Your task to perform on an android device: Go to battery settings Image 0: 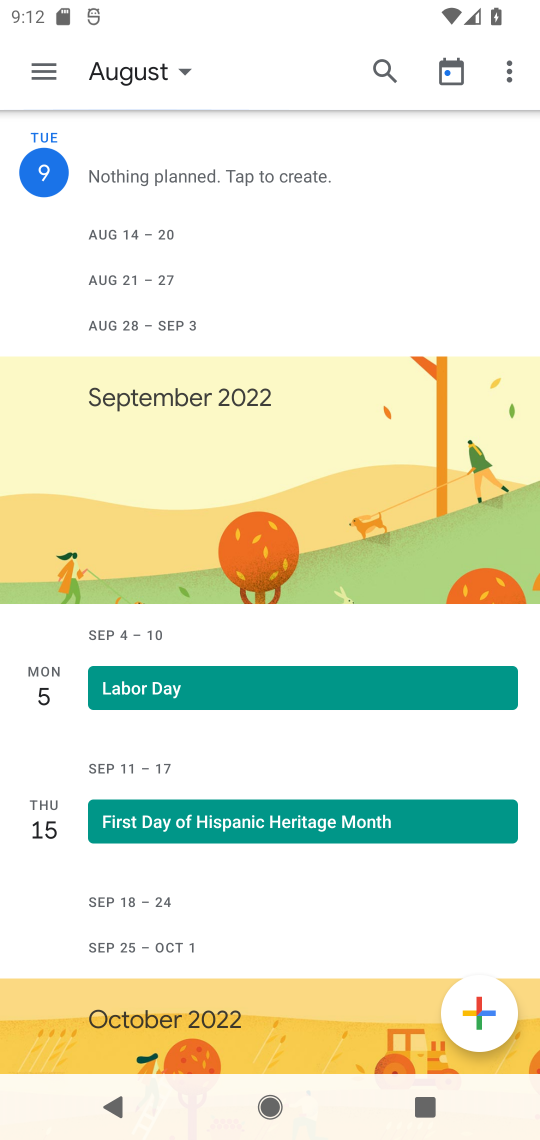
Step 0: press home button
Your task to perform on an android device: Go to battery settings Image 1: 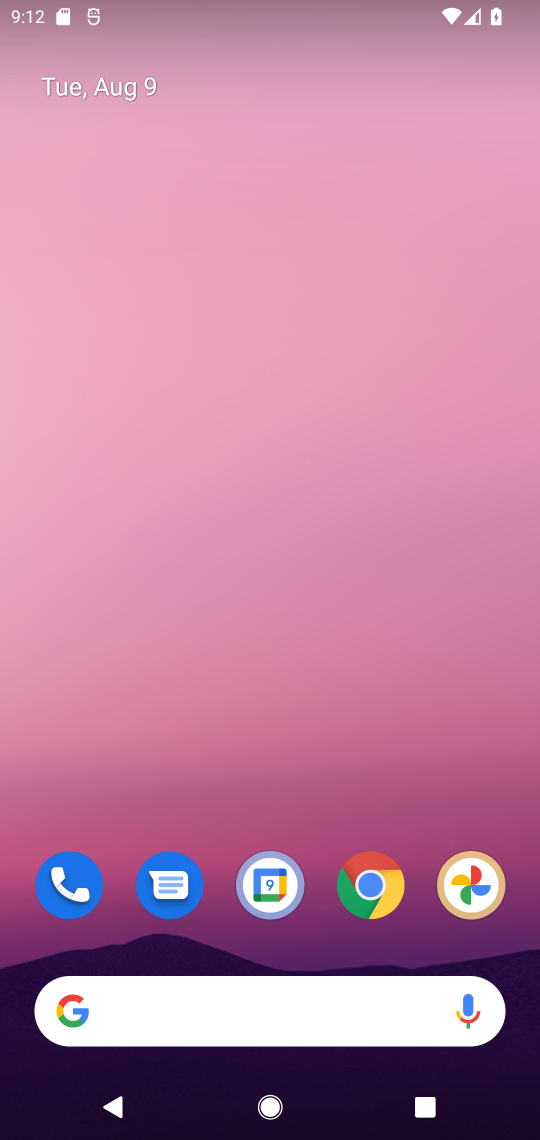
Step 1: drag from (323, 1021) to (273, 28)
Your task to perform on an android device: Go to battery settings Image 2: 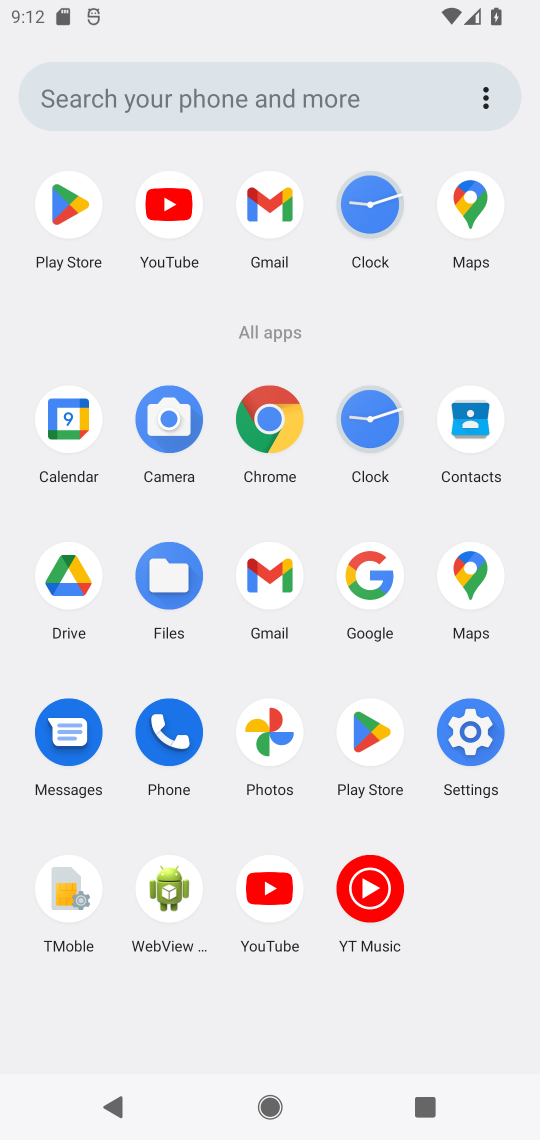
Step 2: click (480, 741)
Your task to perform on an android device: Go to battery settings Image 3: 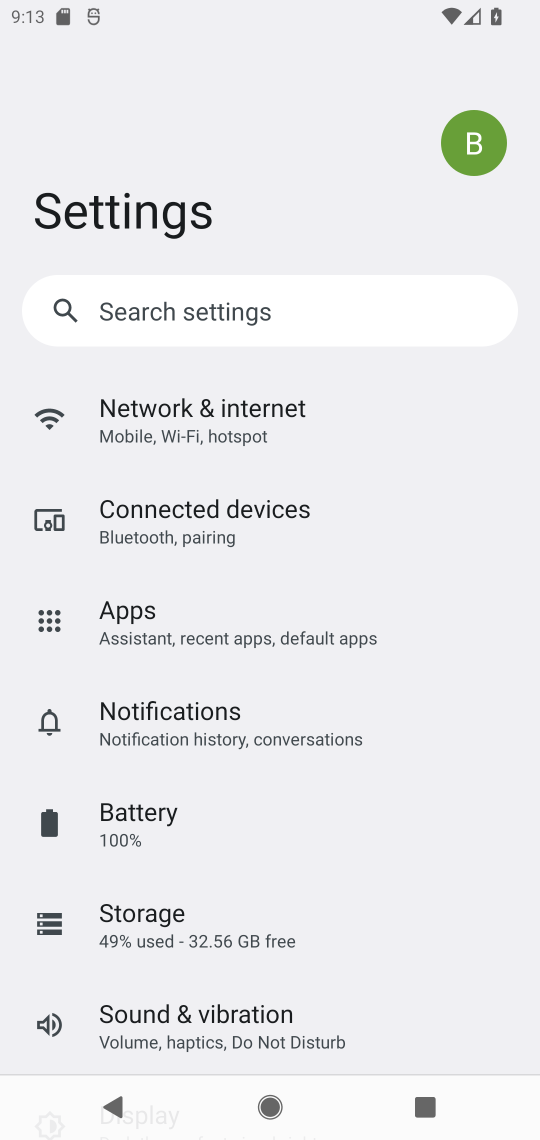
Step 3: drag from (219, 888) to (244, 172)
Your task to perform on an android device: Go to battery settings Image 4: 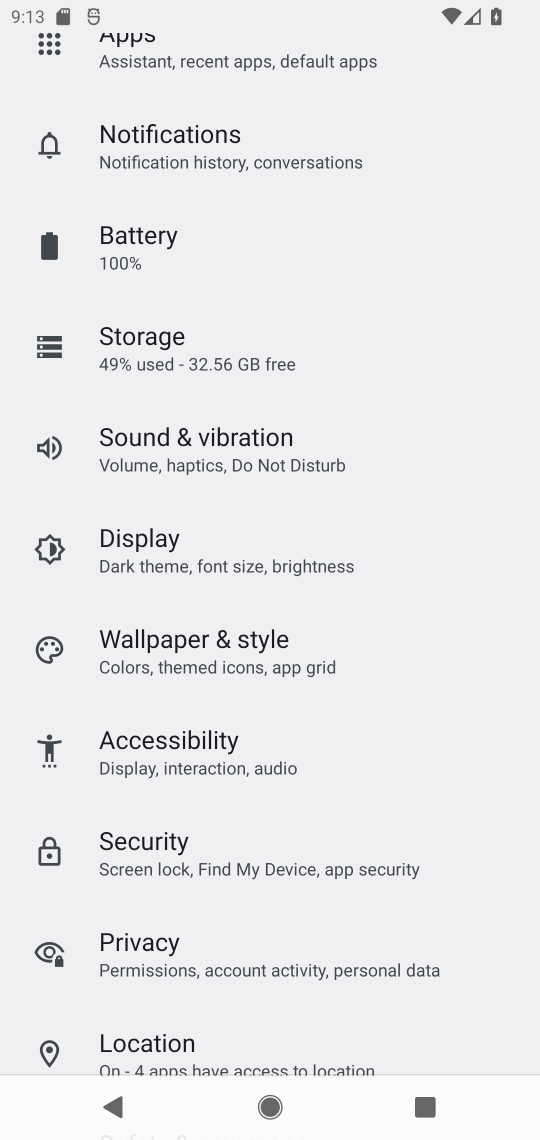
Step 4: click (146, 233)
Your task to perform on an android device: Go to battery settings Image 5: 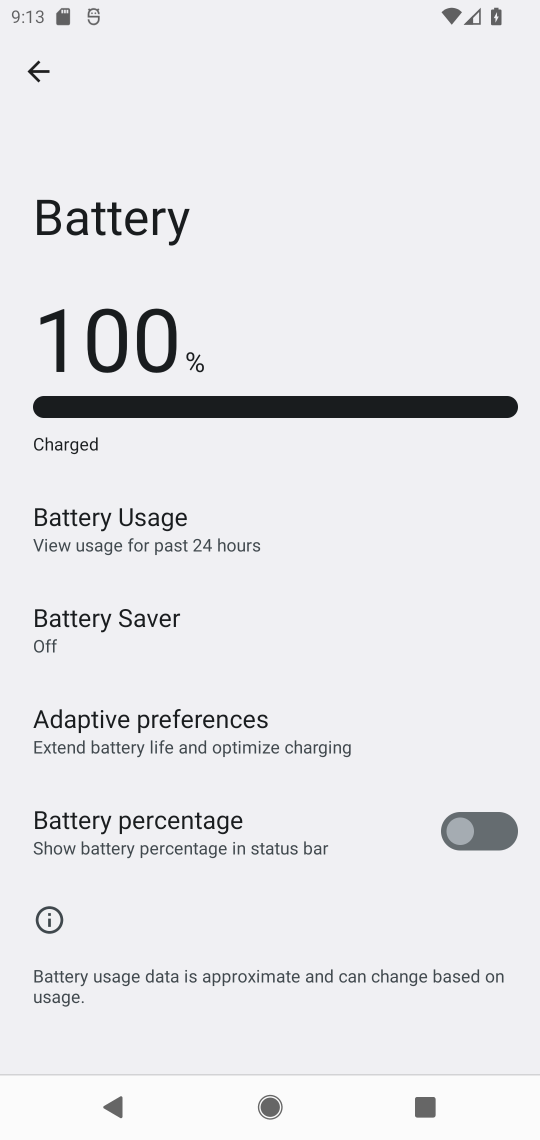
Step 5: task complete